Your task to perform on an android device: find snoozed emails in the gmail app Image 0: 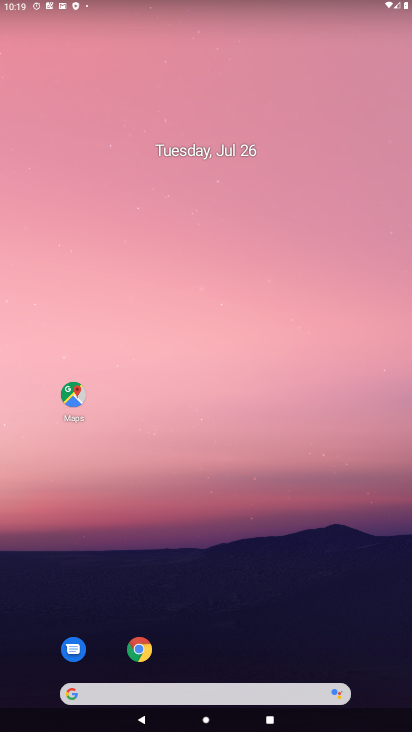
Step 0: drag from (180, 669) to (109, 118)
Your task to perform on an android device: find snoozed emails in the gmail app Image 1: 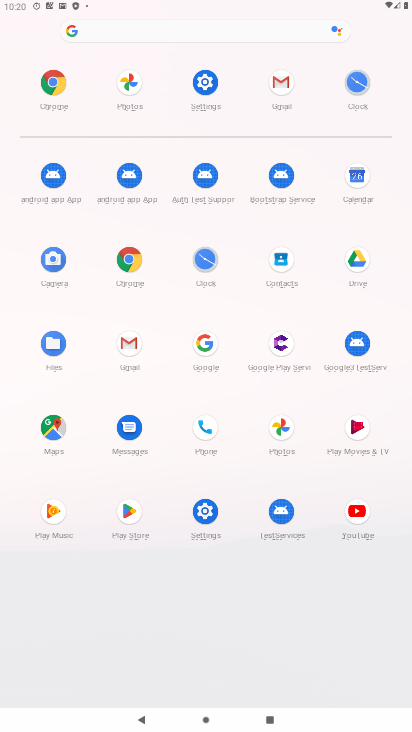
Step 1: click (135, 335)
Your task to perform on an android device: find snoozed emails in the gmail app Image 2: 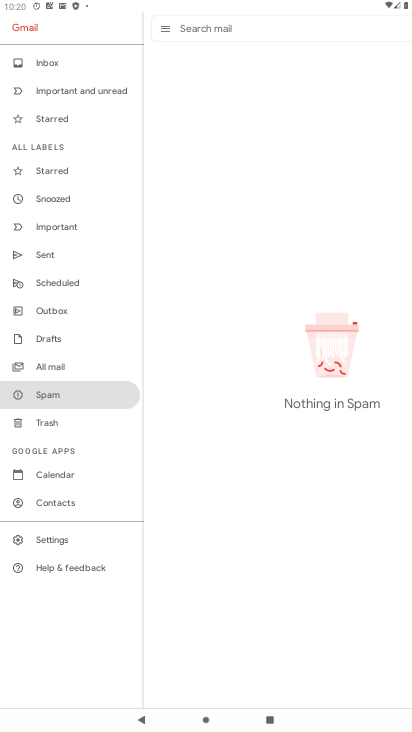
Step 2: click (39, 200)
Your task to perform on an android device: find snoozed emails in the gmail app Image 3: 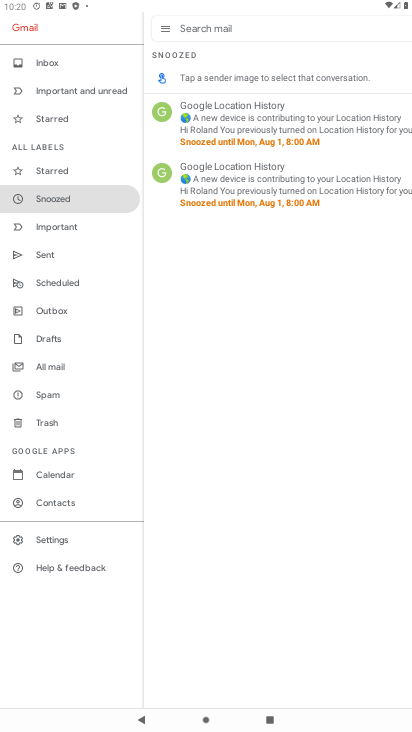
Step 3: task complete